Your task to perform on an android device: View the shopping cart on newegg.com. Image 0: 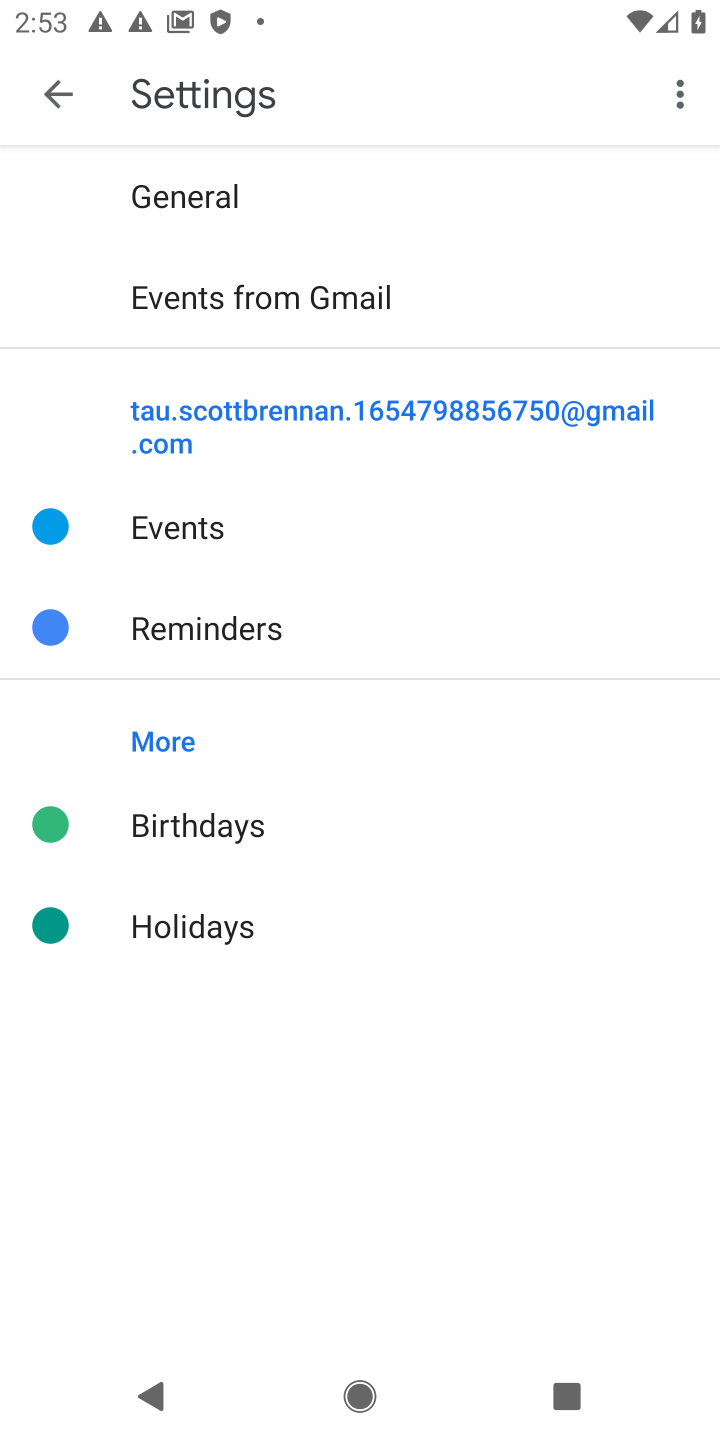
Step 0: press home button
Your task to perform on an android device: View the shopping cart on newegg.com. Image 1: 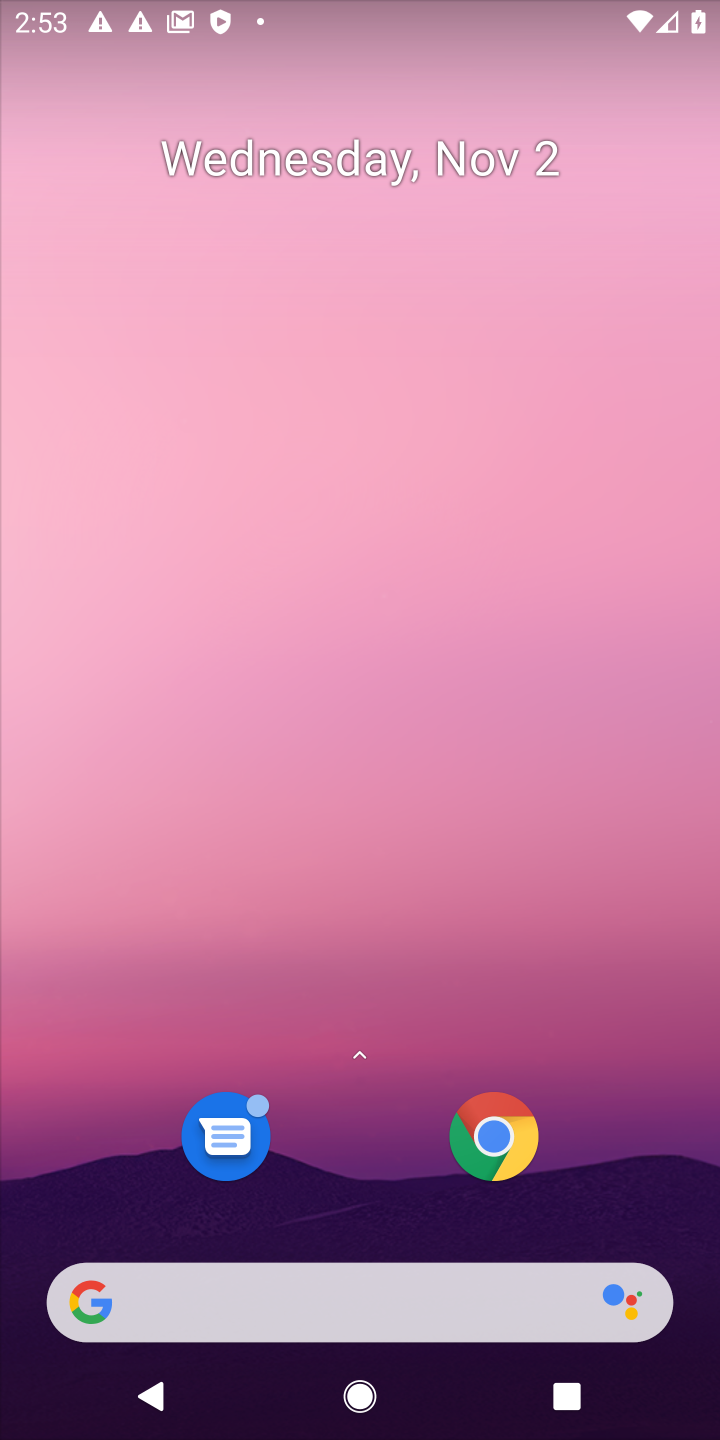
Step 1: drag from (361, 1199) to (404, 80)
Your task to perform on an android device: View the shopping cart on newegg.com. Image 2: 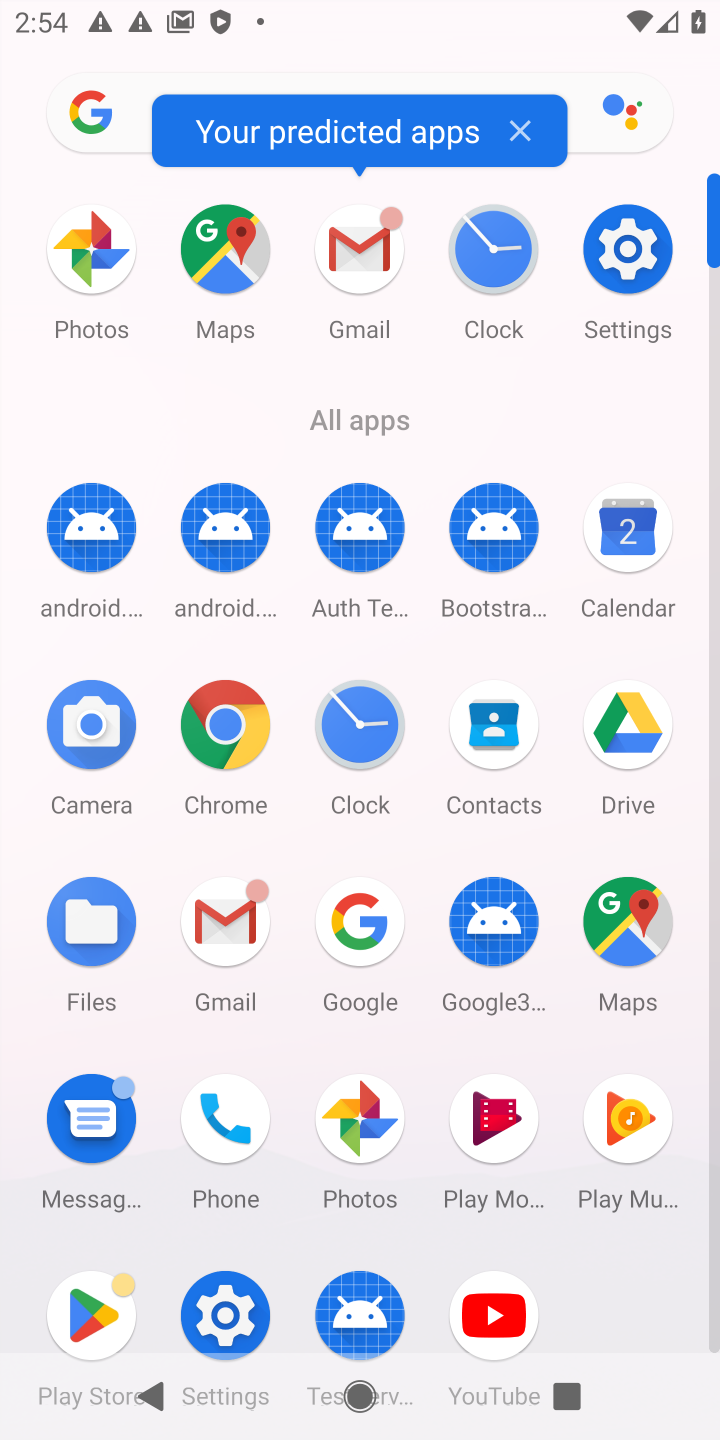
Step 2: click (224, 738)
Your task to perform on an android device: View the shopping cart on newegg.com. Image 3: 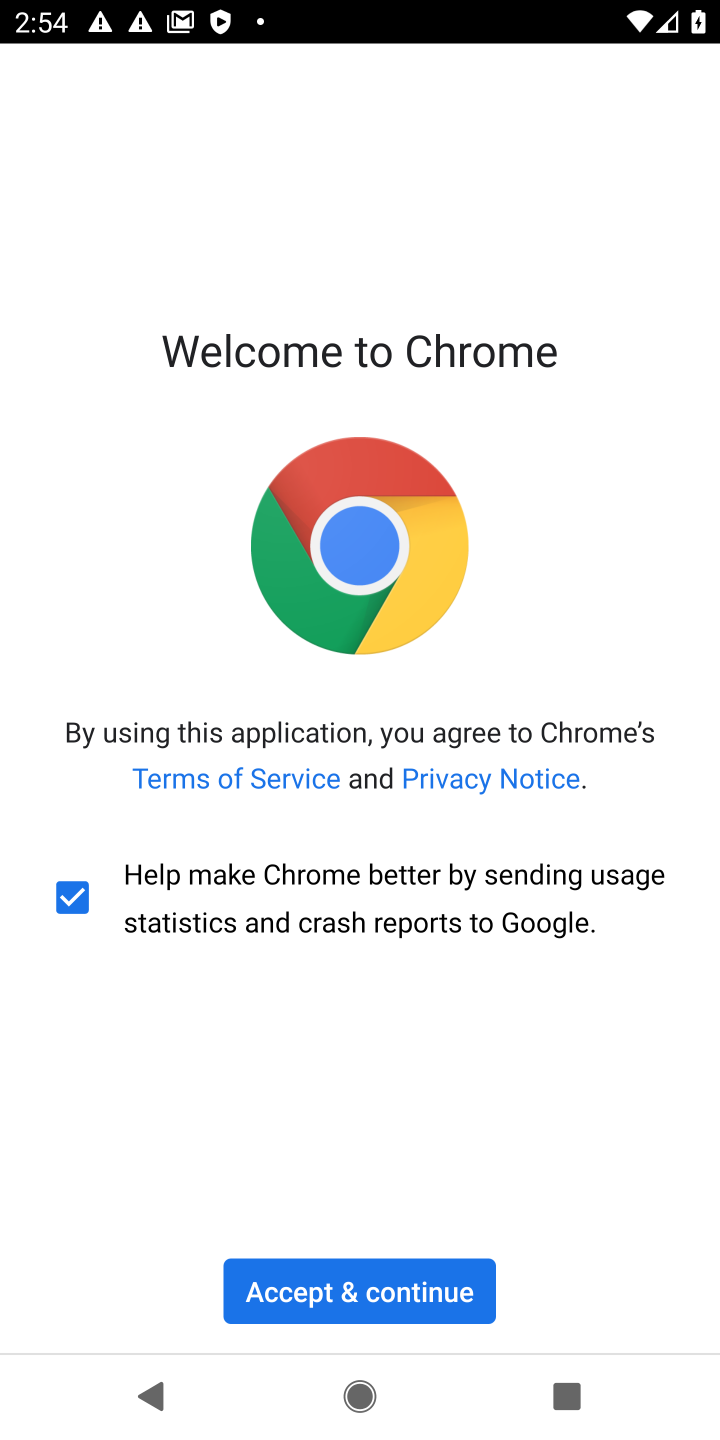
Step 3: click (351, 1297)
Your task to perform on an android device: View the shopping cart on newegg.com. Image 4: 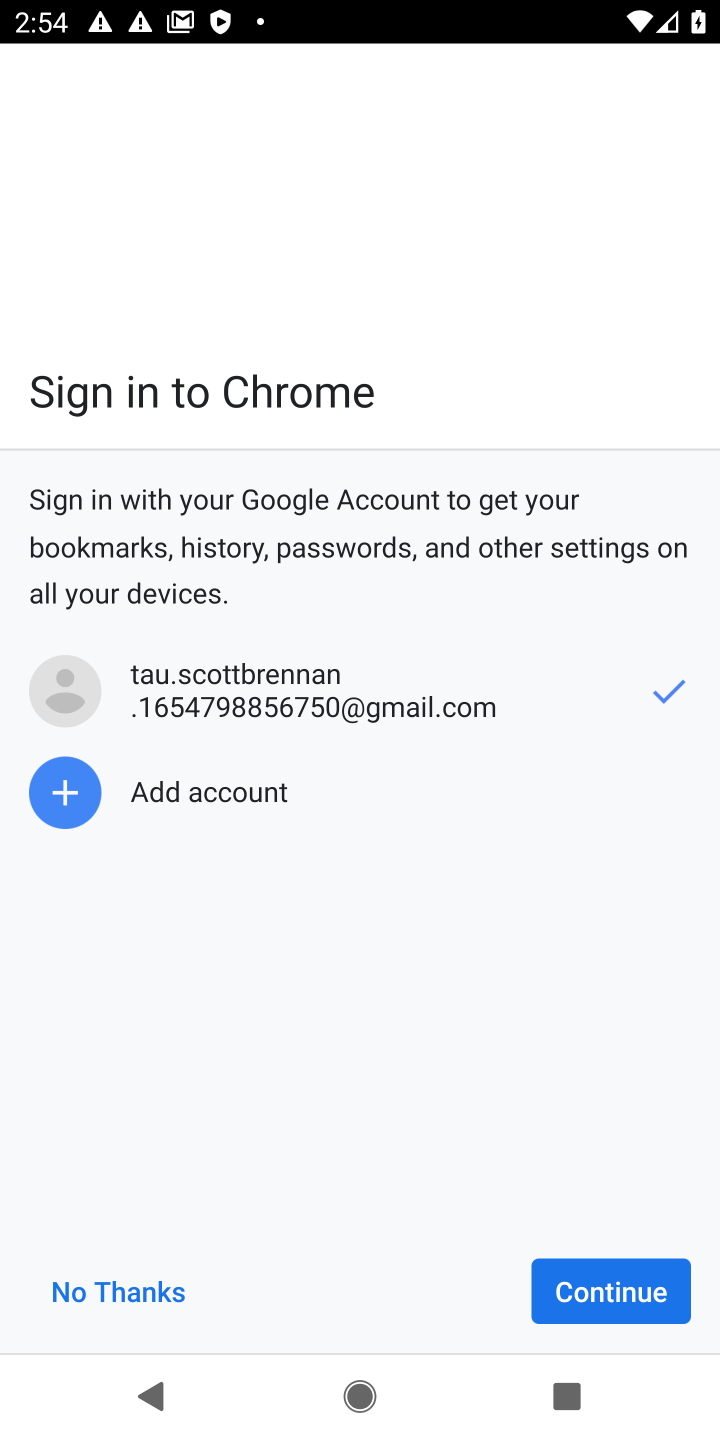
Step 4: click (609, 1308)
Your task to perform on an android device: View the shopping cart on newegg.com. Image 5: 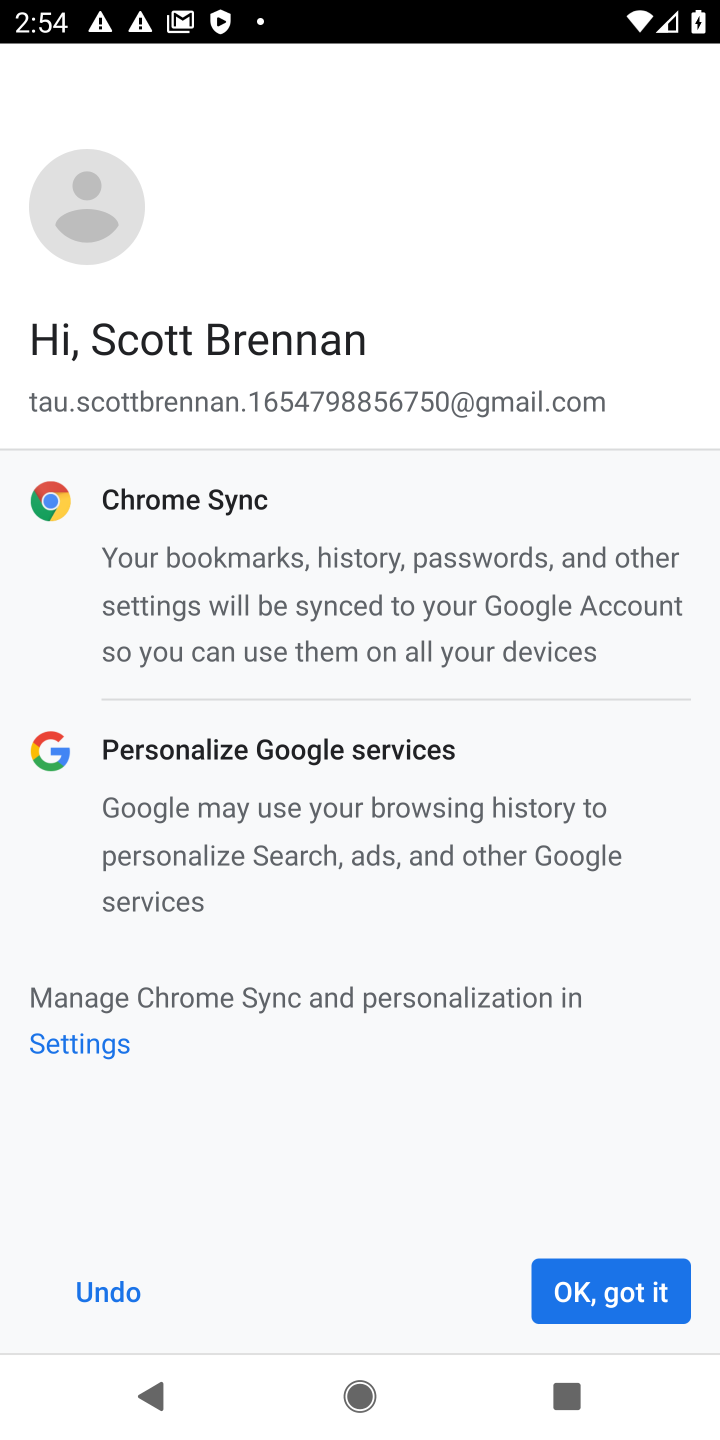
Step 5: click (606, 1308)
Your task to perform on an android device: View the shopping cart on newegg.com. Image 6: 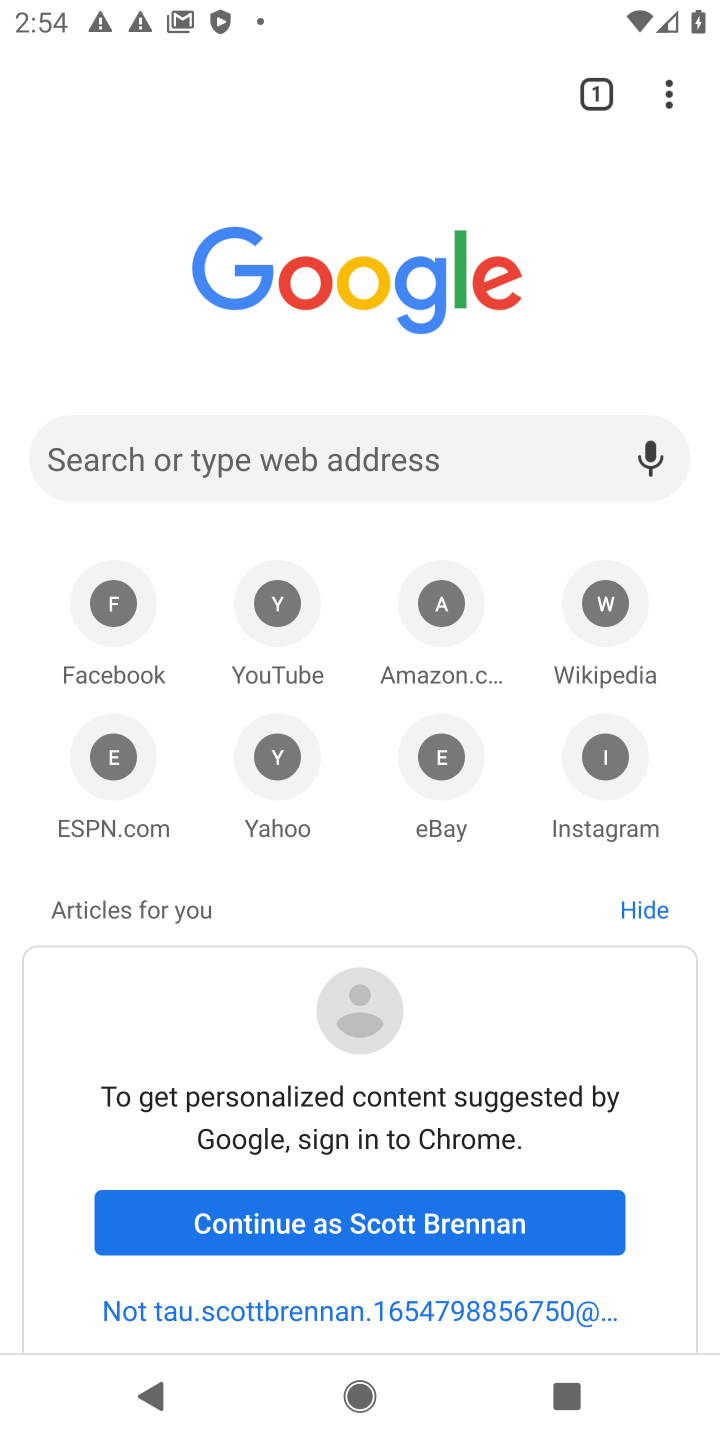
Step 6: click (395, 110)
Your task to perform on an android device: View the shopping cart on newegg.com. Image 7: 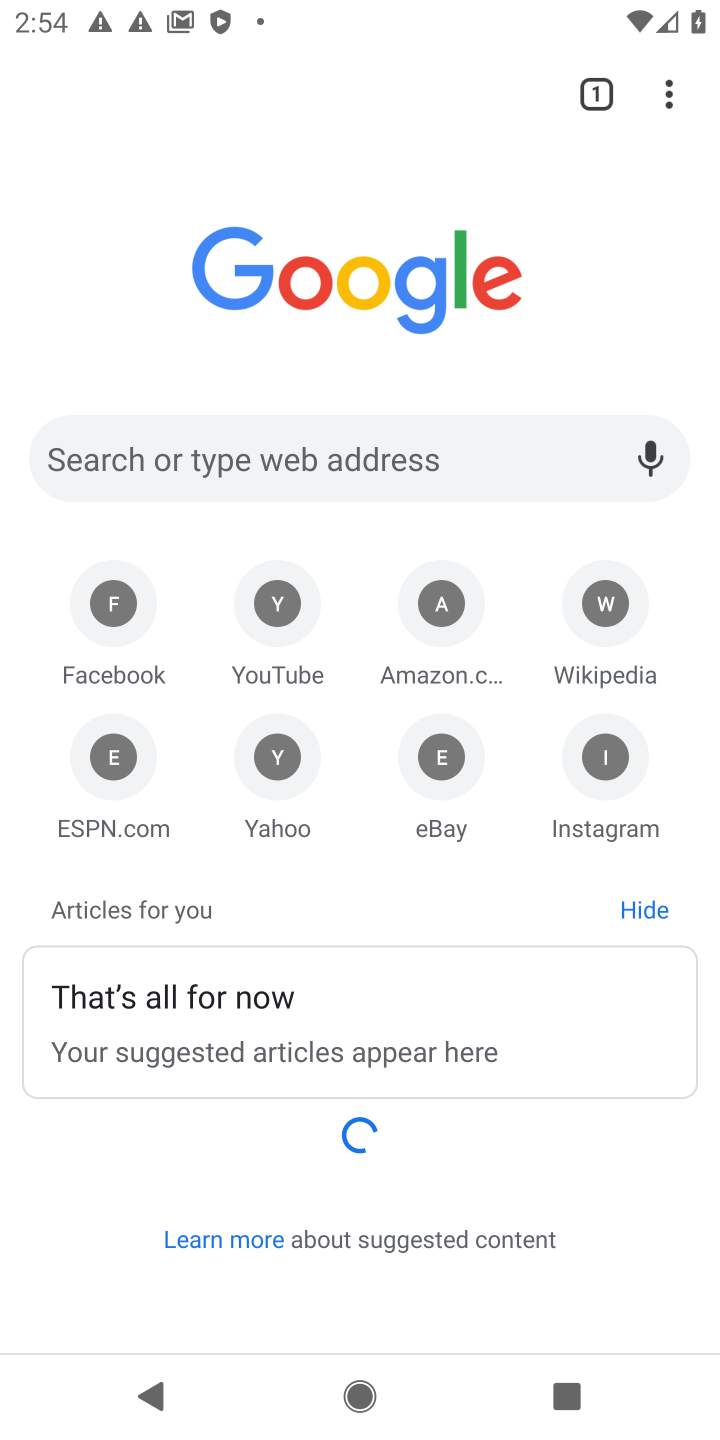
Step 7: click (502, 426)
Your task to perform on an android device: View the shopping cart on newegg.com. Image 8: 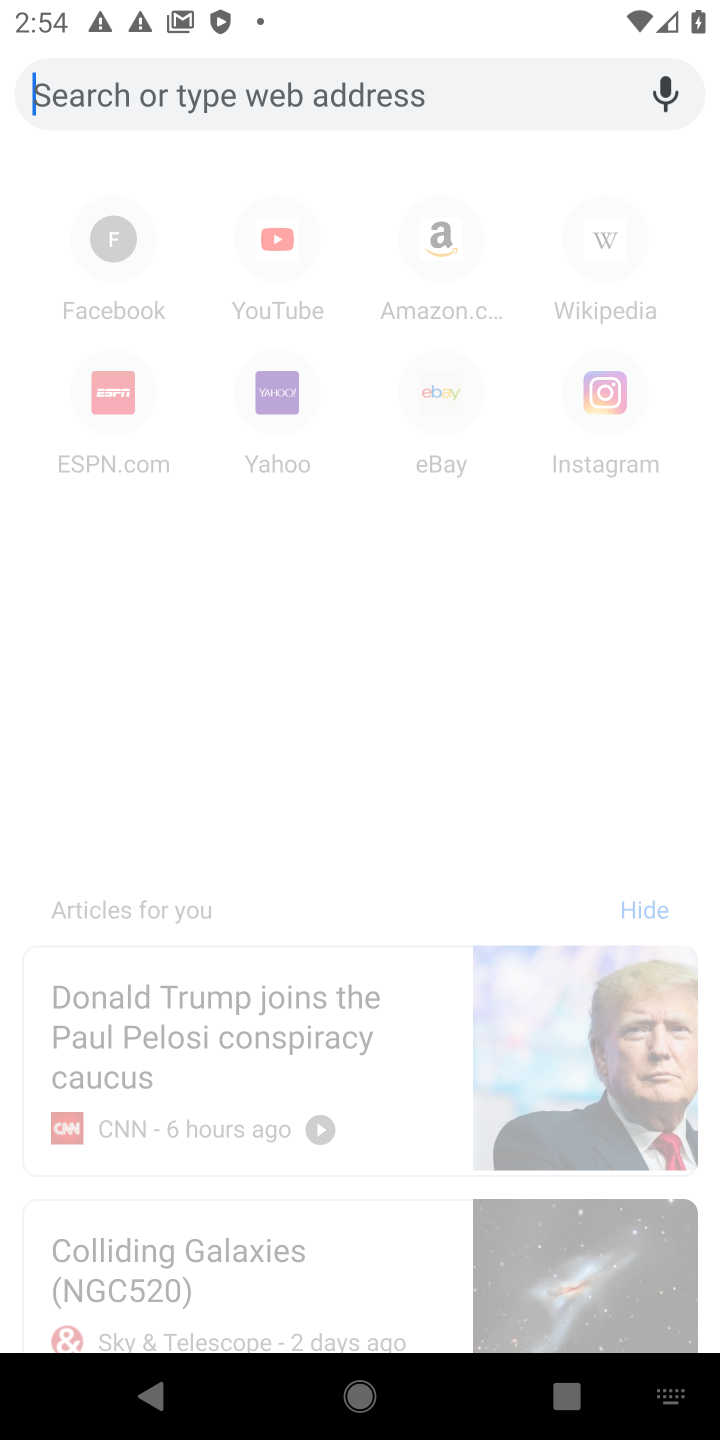
Step 8: type "newegg.com"
Your task to perform on an android device: View the shopping cart on newegg.com. Image 9: 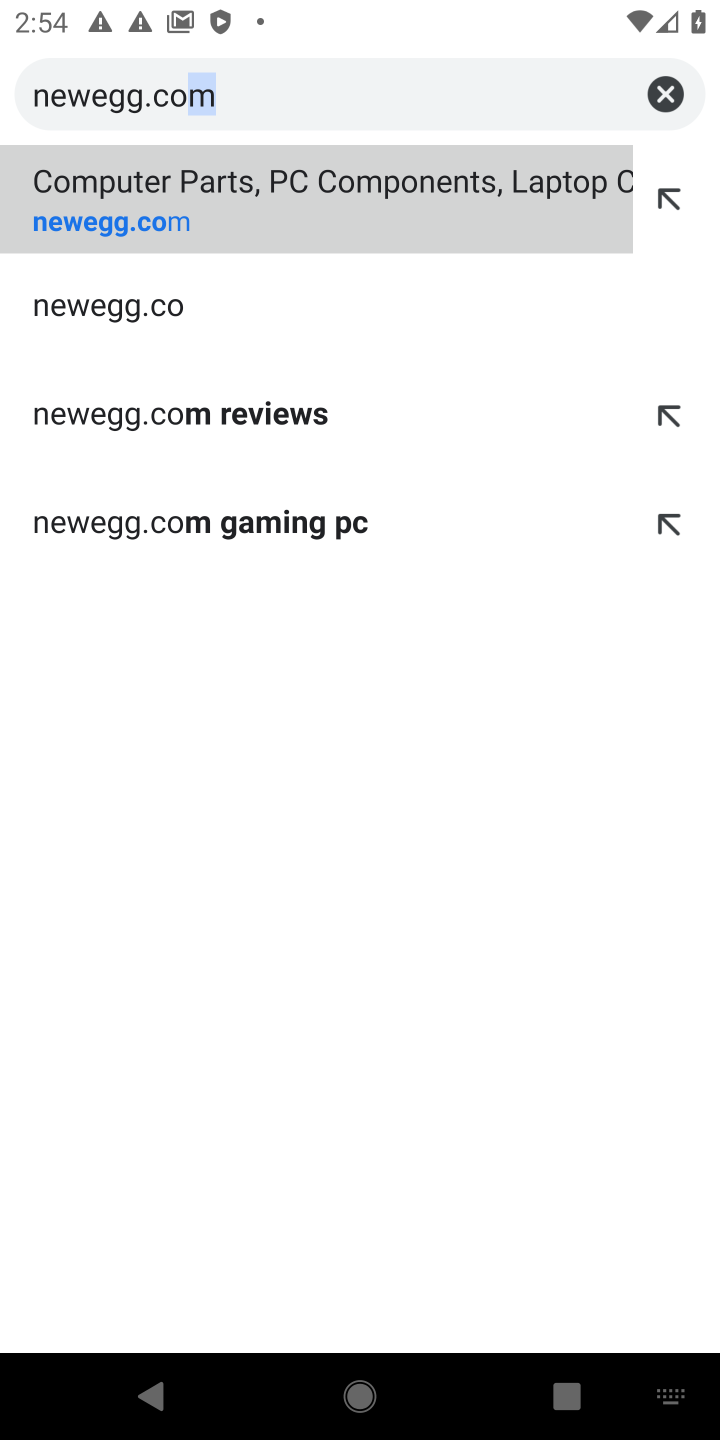
Step 9: press enter
Your task to perform on an android device: View the shopping cart on newegg.com. Image 10: 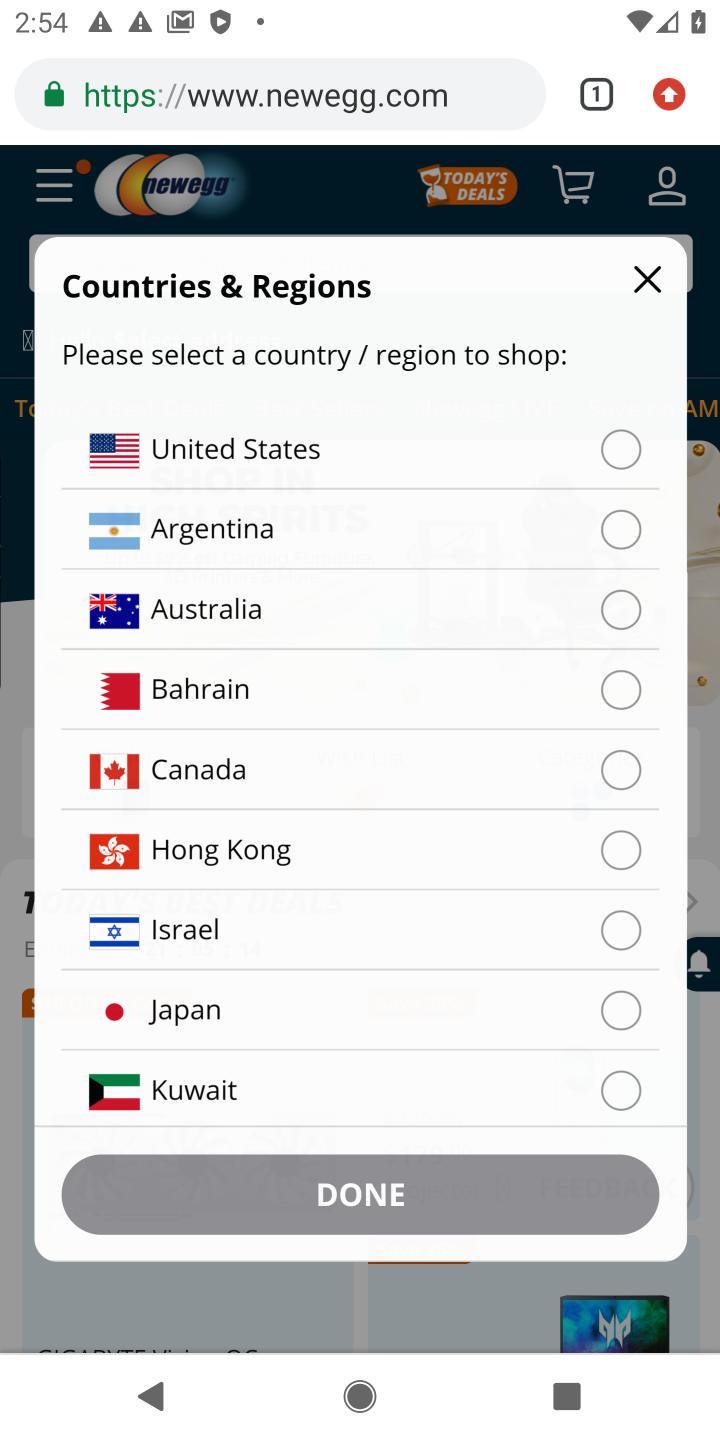
Step 10: click (654, 273)
Your task to perform on an android device: View the shopping cart on newegg.com. Image 11: 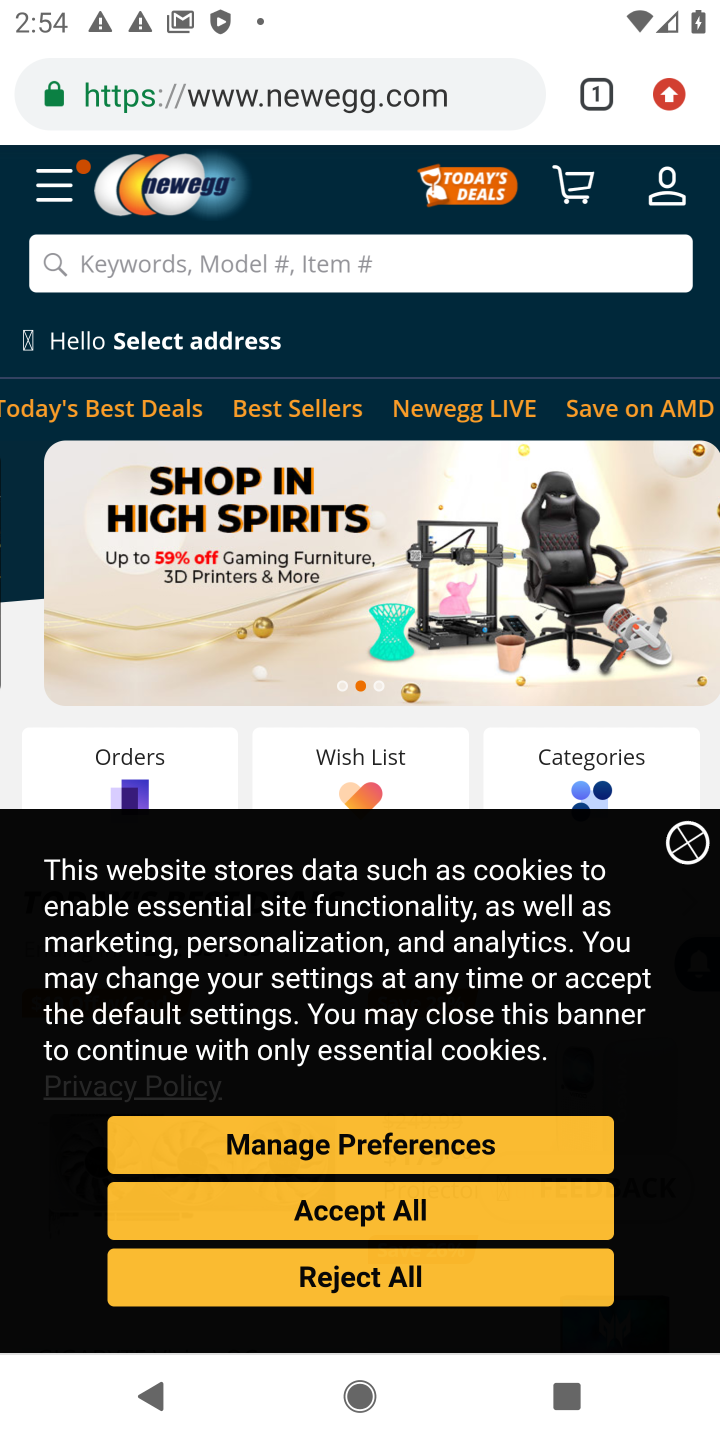
Step 11: click (648, 269)
Your task to perform on an android device: View the shopping cart on newegg.com. Image 12: 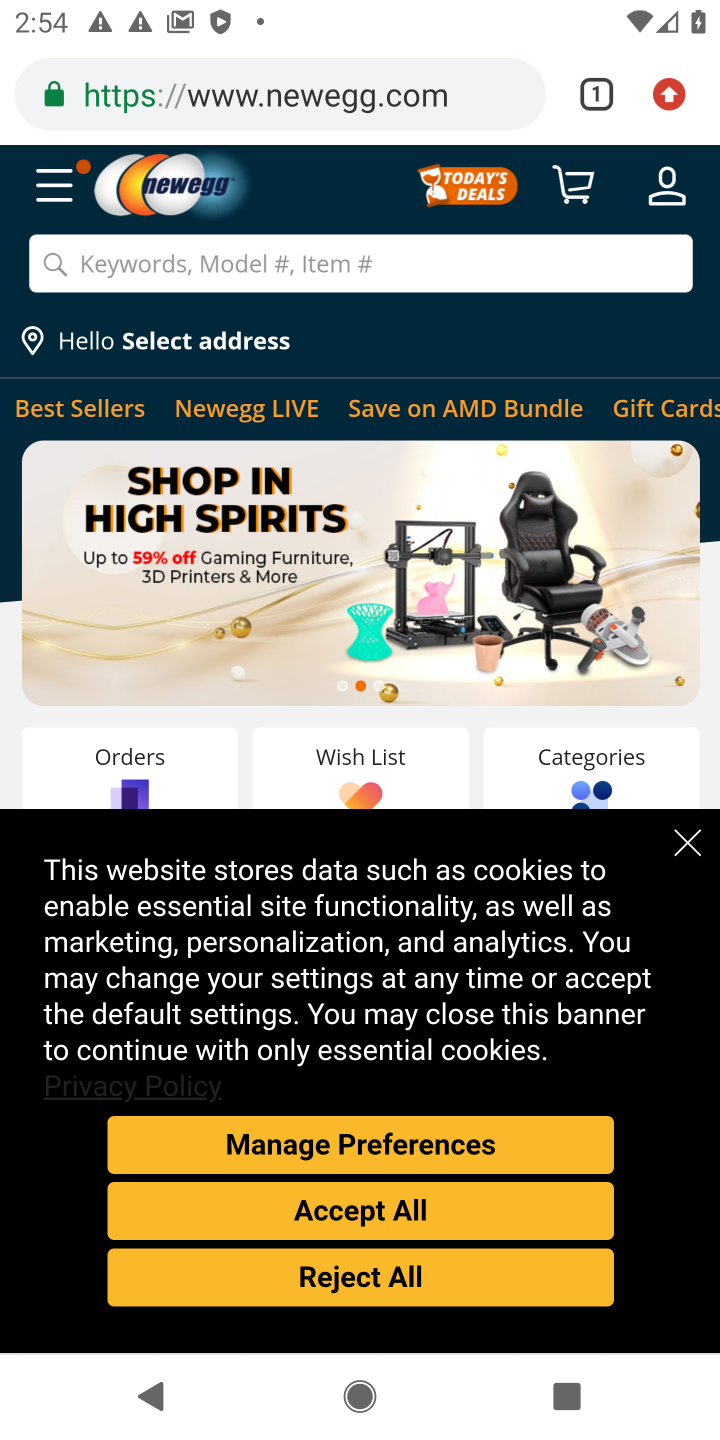
Step 12: click (455, 272)
Your task to perform on an android device: View the shopping cart on newegg.com. Image 13: 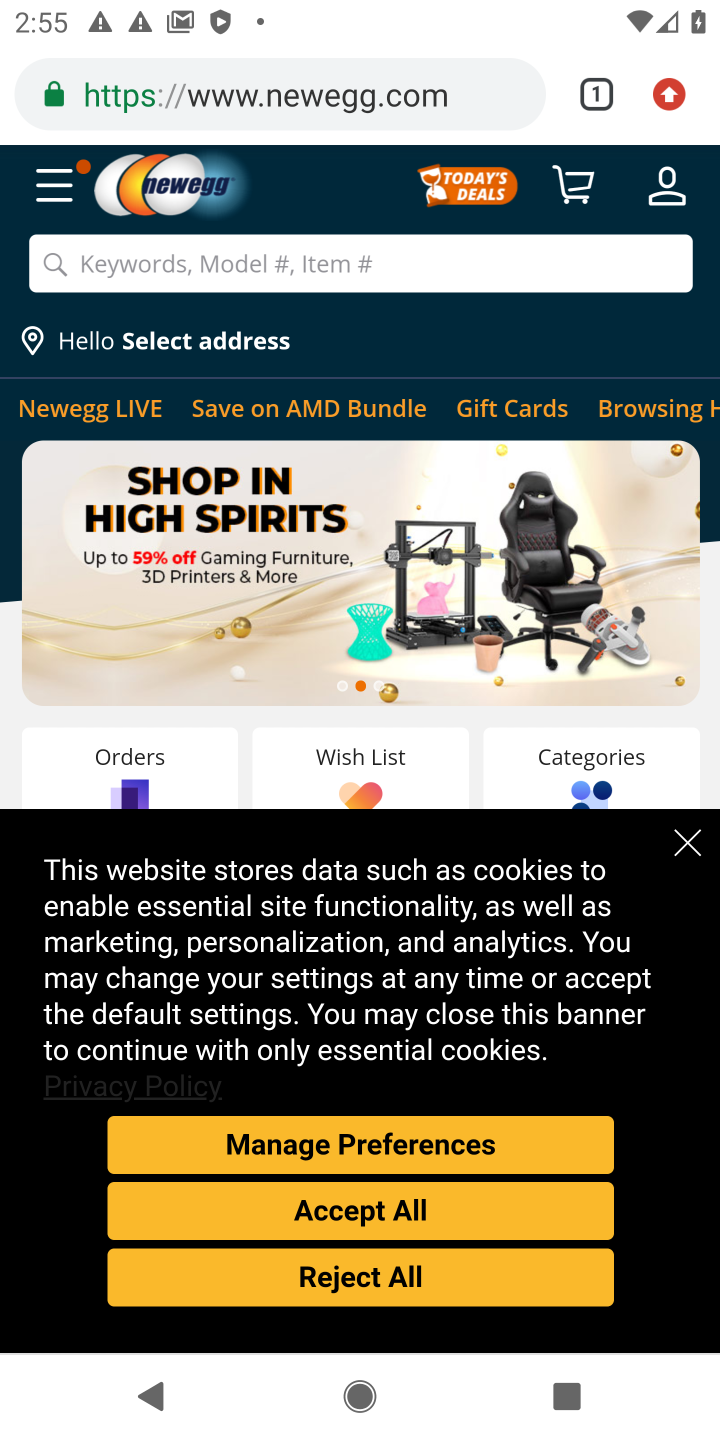
Step 13: click (253, 273)
Your task to perform on an android device: View the shopping cart on newegg.com. Image 14: 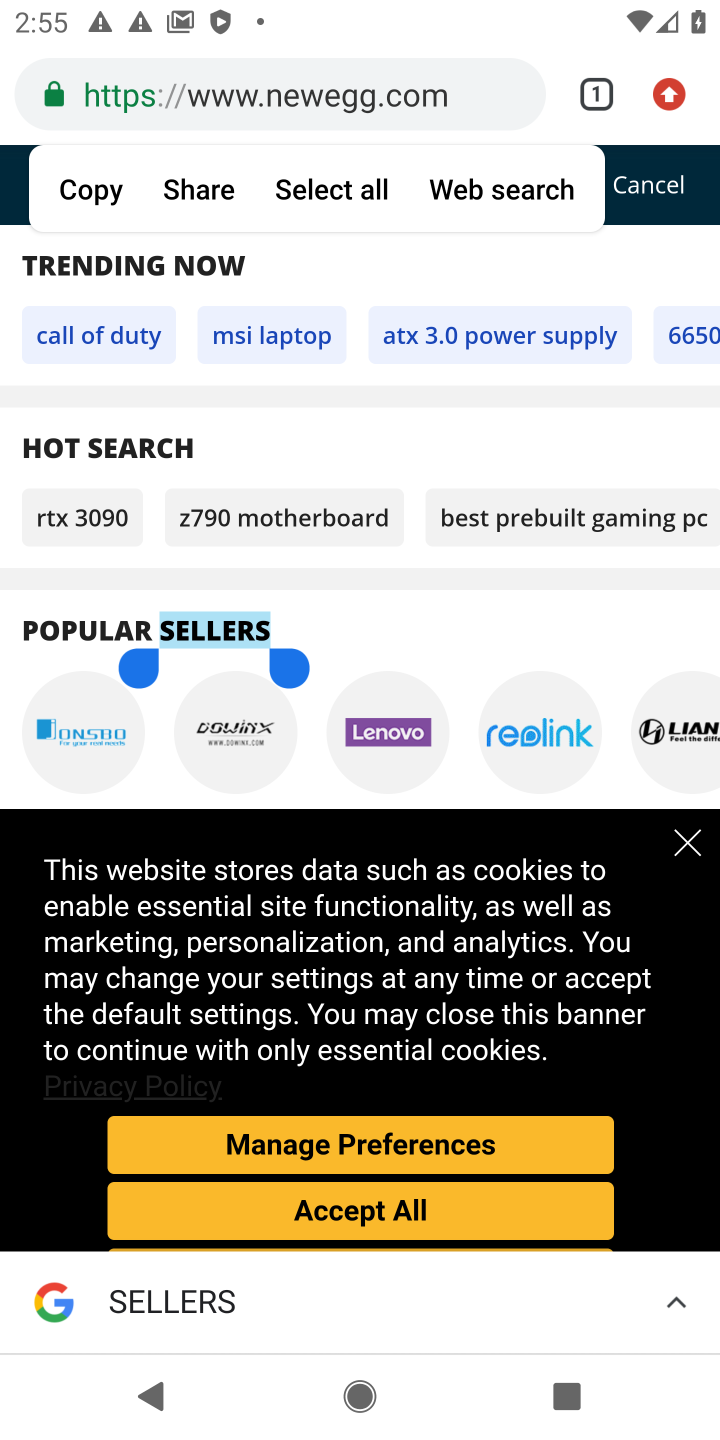
Step 14: click (665, 172)
Your task to perform on an android device: View the shopping cart on newegg.com. Image 15: 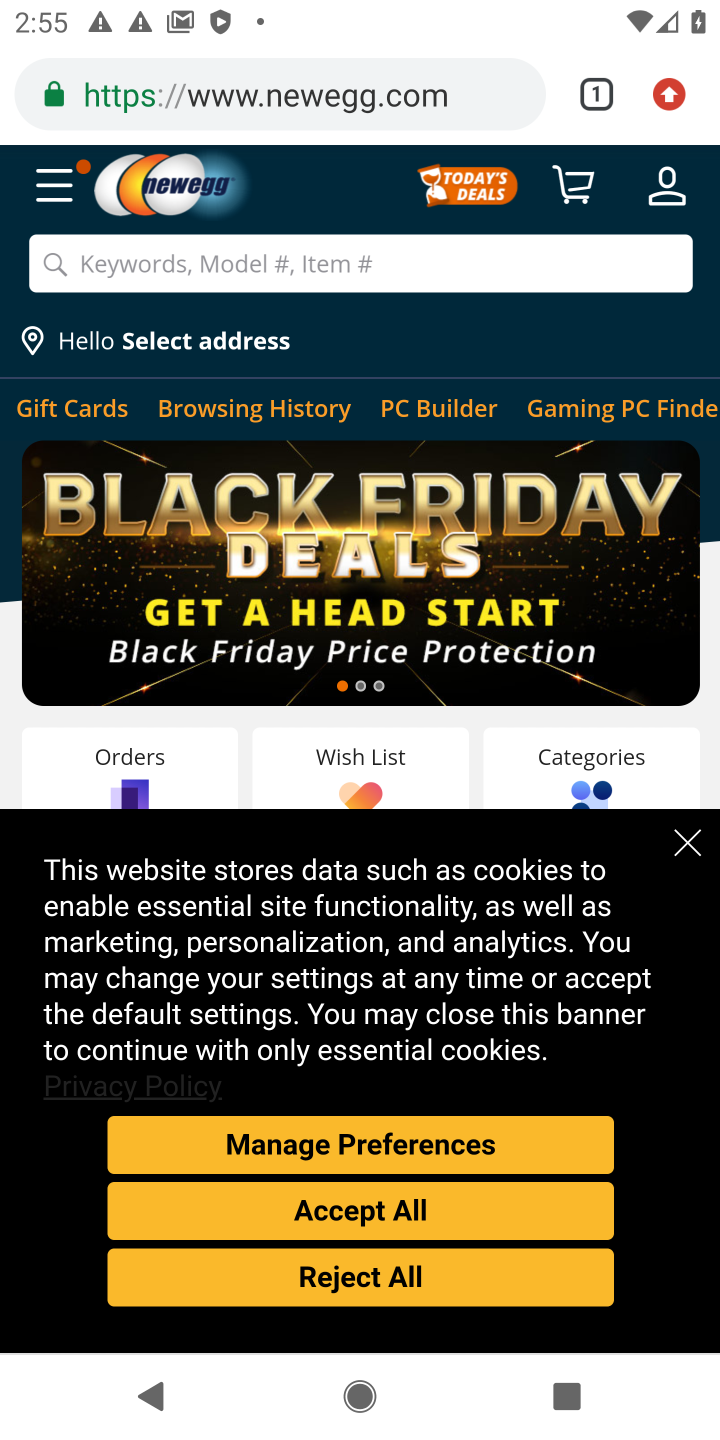
Step 15: click (660, 187)
Your task to perform on an android device: View the shopping cart on newegg.com. Image 16: 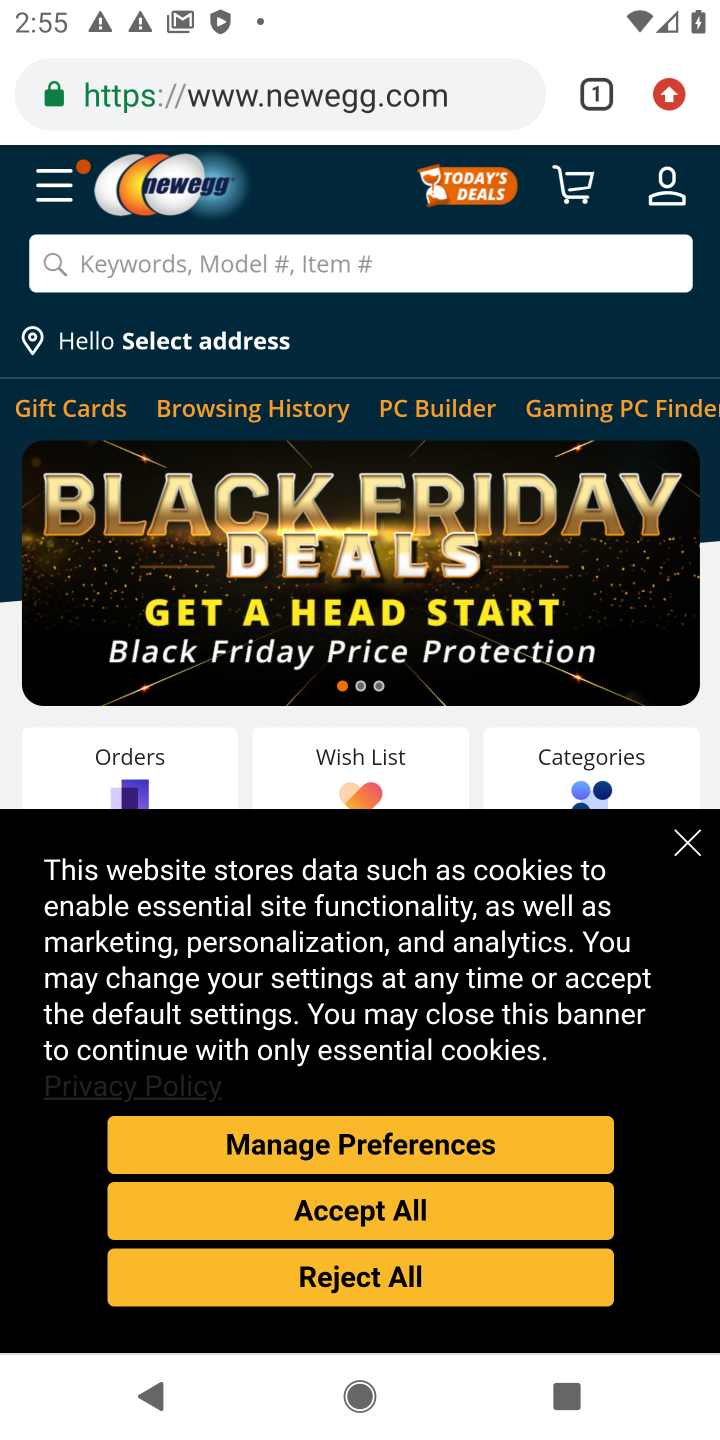
Step 16: click (598, 184)
Your task to perform on an android device: View the shopping cart on newegg.com. Image 17: 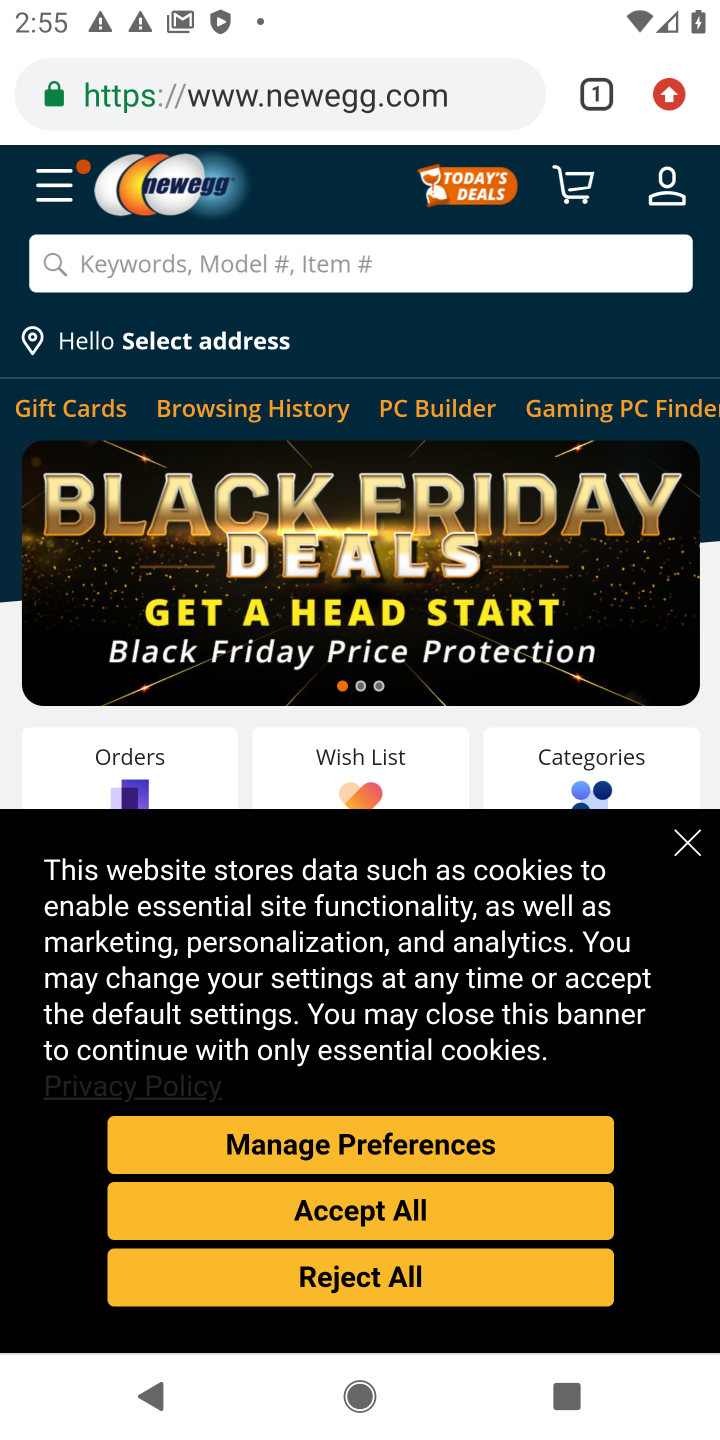
Step 17: click (600, 185)
Your task to perform on an android device: View the shopping cart on newegg.com. Image 18: 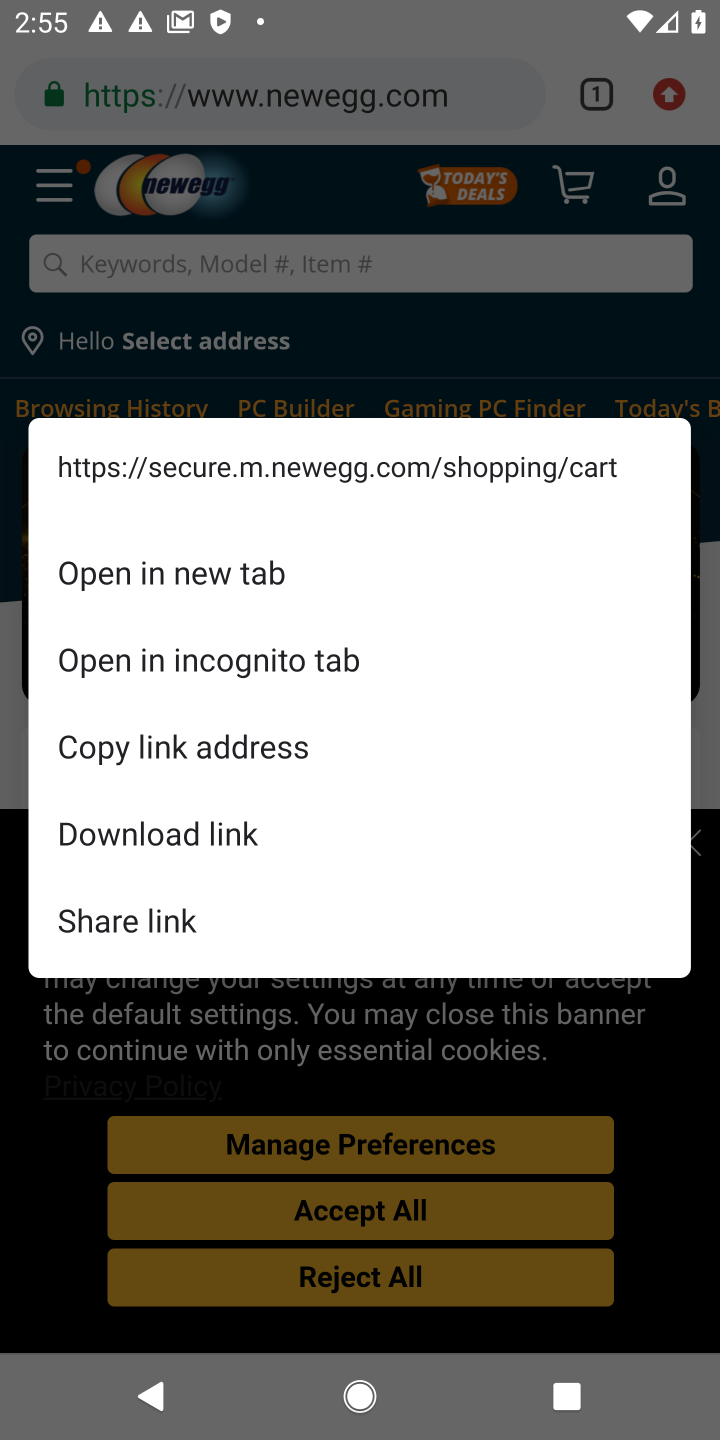
Step 18: click (575, 193)
Your task to perform on an android device: View the shopping cart on newegg.com. Image 19: 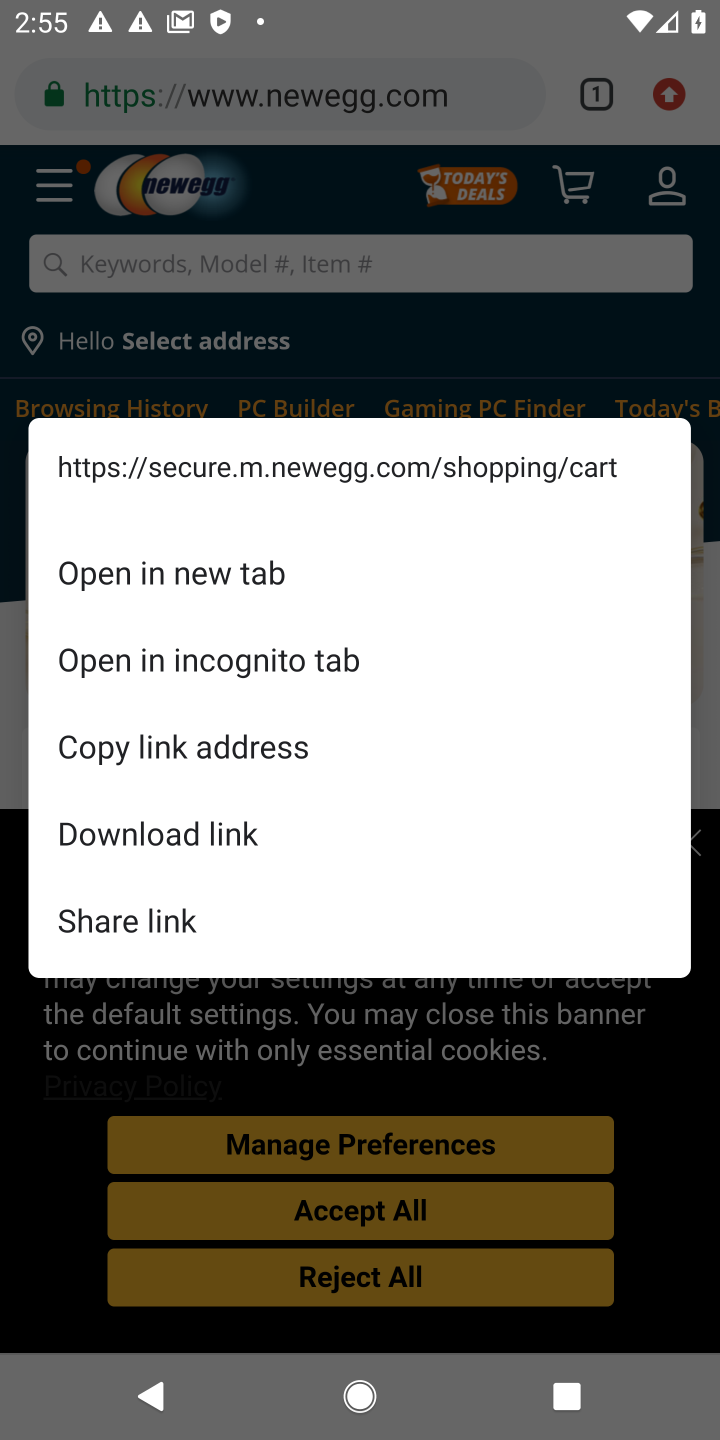
Step 19: click (575, 193)
Your task to perform on an android device: View the shopping cart on newegg.com. Image 20: 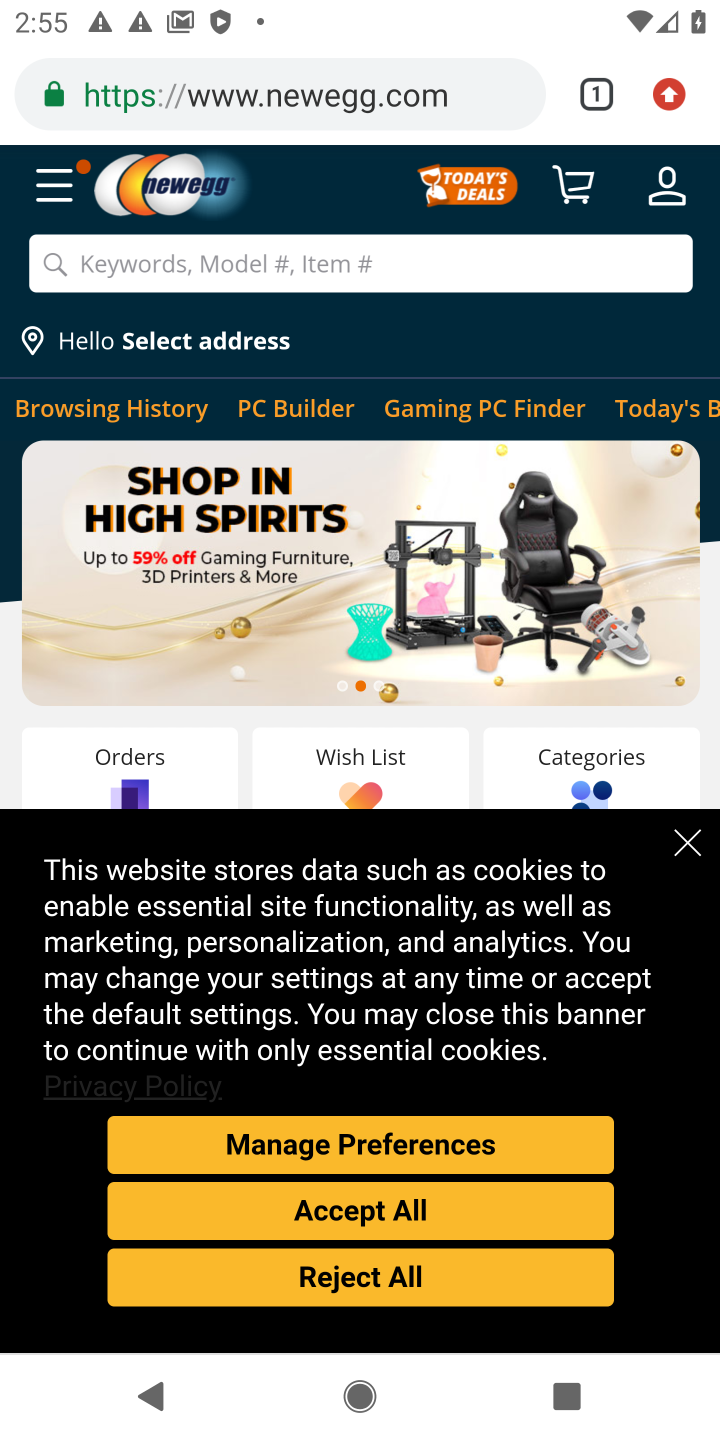
Step 20: click (575, 193)
Your task to perform on an android device: View the shopping cart on newegg.com. Image 21: 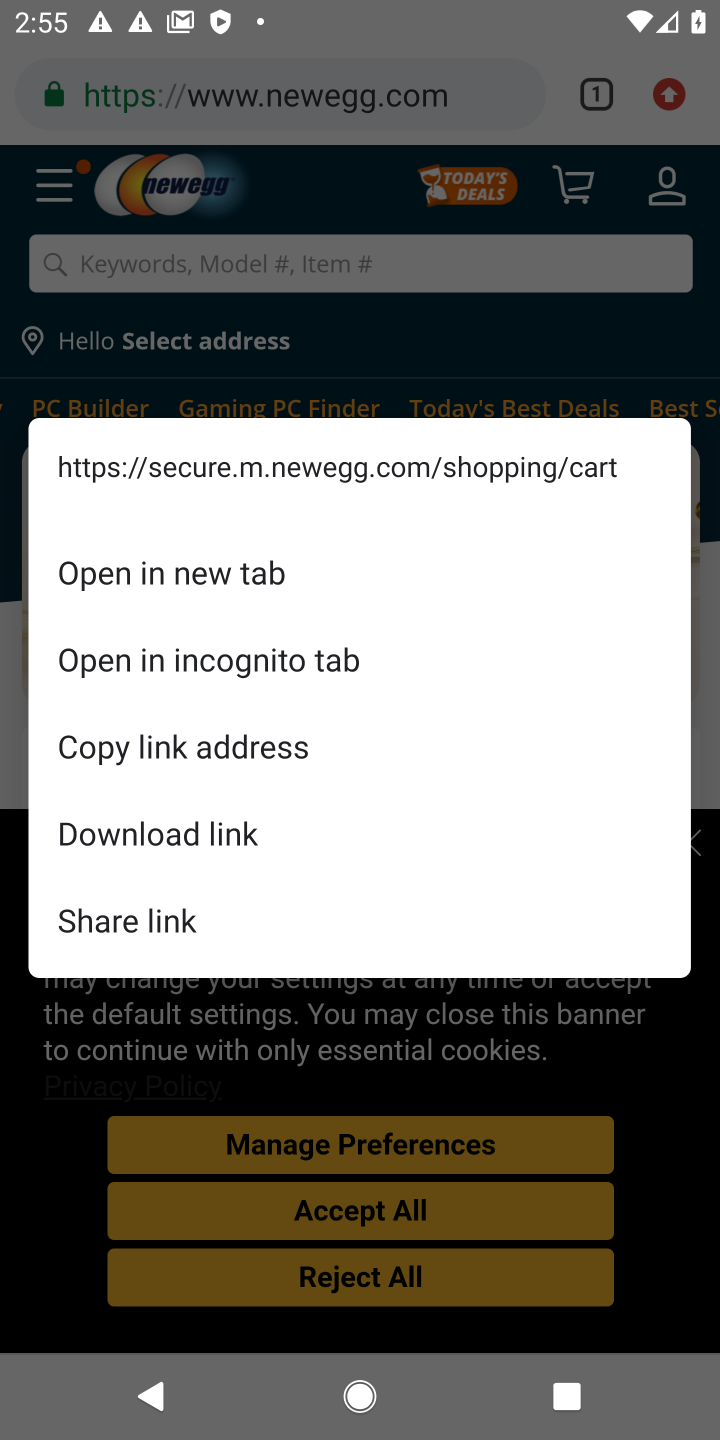
Step 21: click (572, 185)
Your task to perform on an android device: View the shopping cart on newegg.com. Image 22: 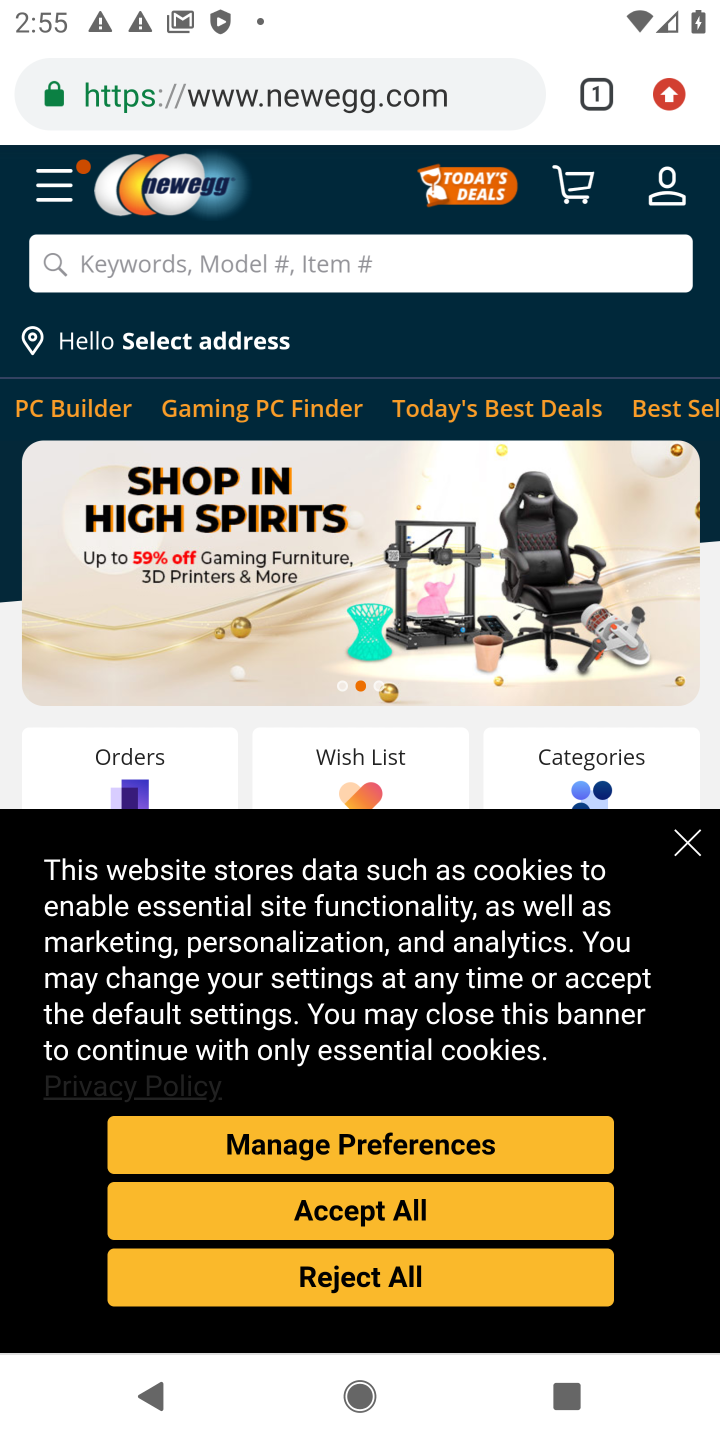
Step 22: click (572, 185)
Your task to perform on an android device: View the shopping cart on newegg.com. Image 23: 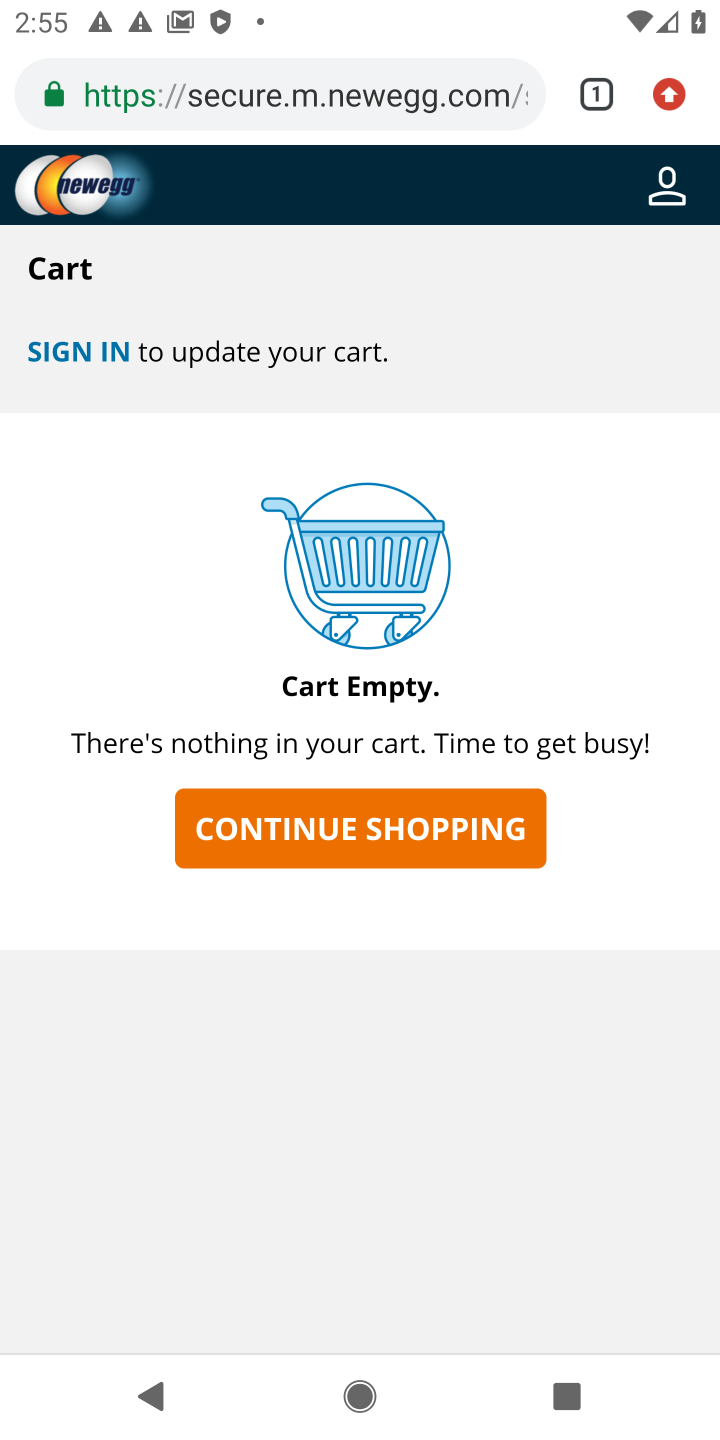
Step 23: task complete